Your task to perform on an android device: set the stopwatch Image 0: 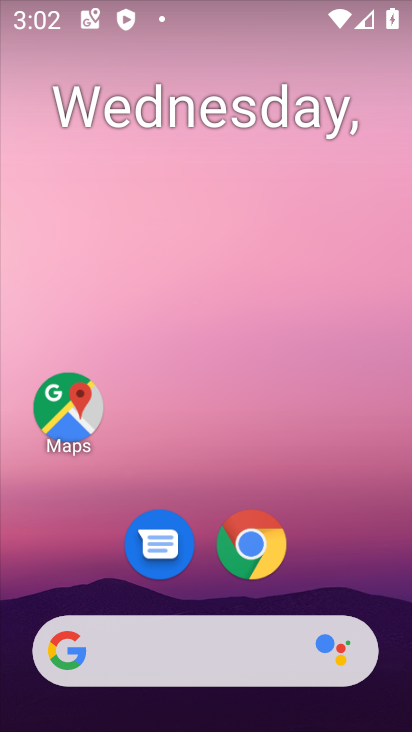
Step 0: drag from (388, 594) to (389, 236)
Your task to perform on an android device: set the stopwatch Image 1: 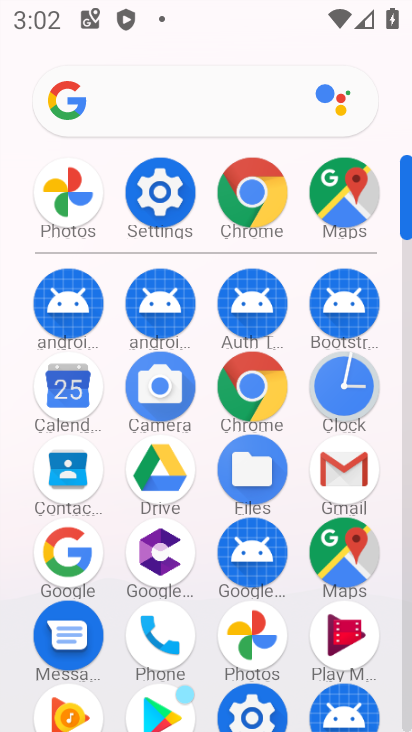
Step 1: click (320, 403)
Your task to perform on an android device: set the stopwatch Image 2: 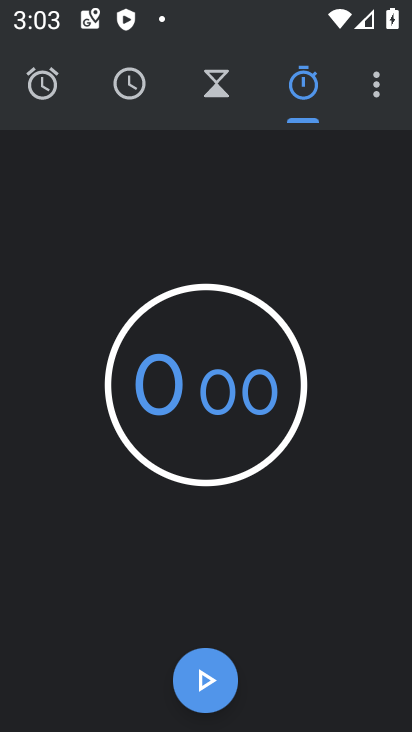
Step 2: click (196, 698)
Your task to perform on an android device: set the stopwatch Image 3: 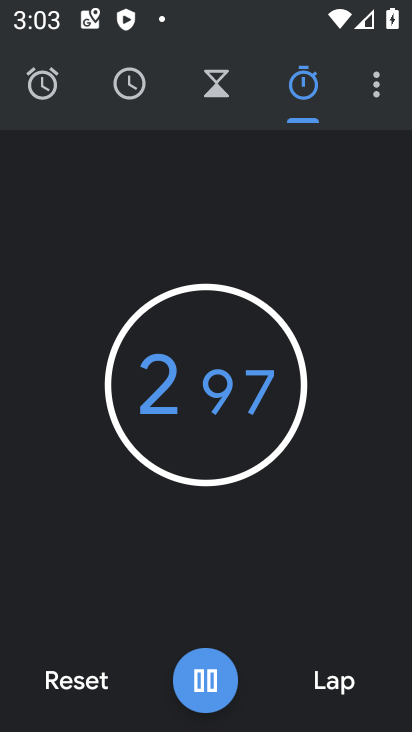
Step 3: click (209, 676)
Your task to perform on an android device: set the stopwatch Image 4: 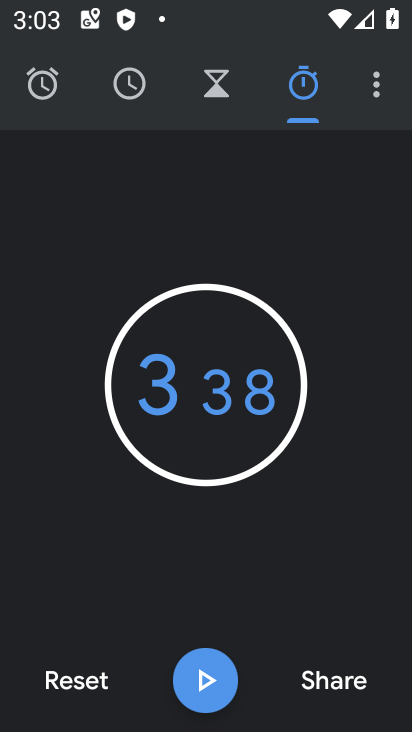
Step 4: task complete